Your task to perform on an android device: Open network settings Image 0: 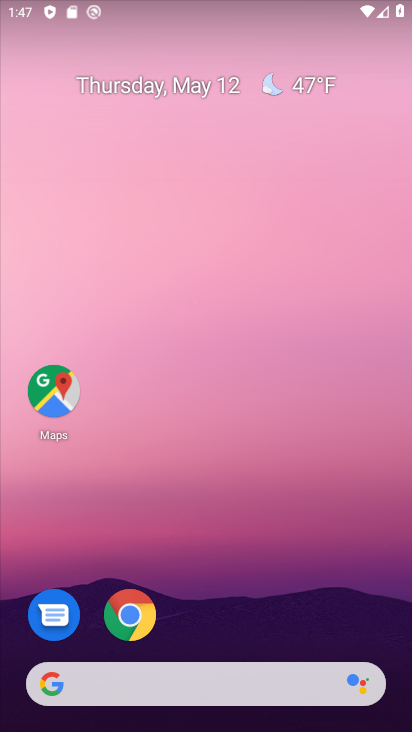
Step 0: drag from (244, 611) to (263, 134)
Your task to perform on an android device: Open network settings Image 1: 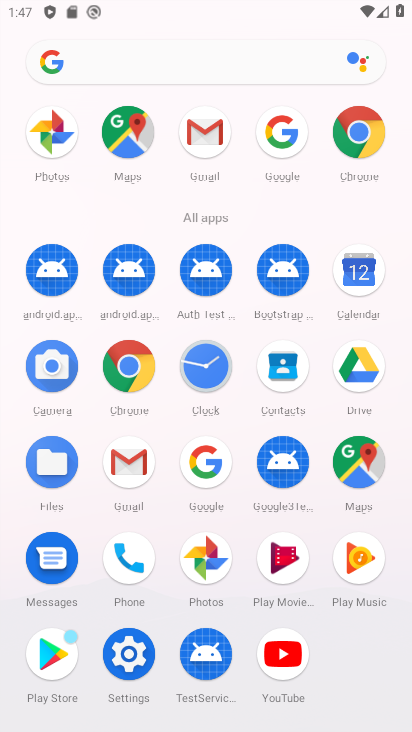
Step 1: click (128, 657)
Your task to perform on an android device: Open network settings Image 2: 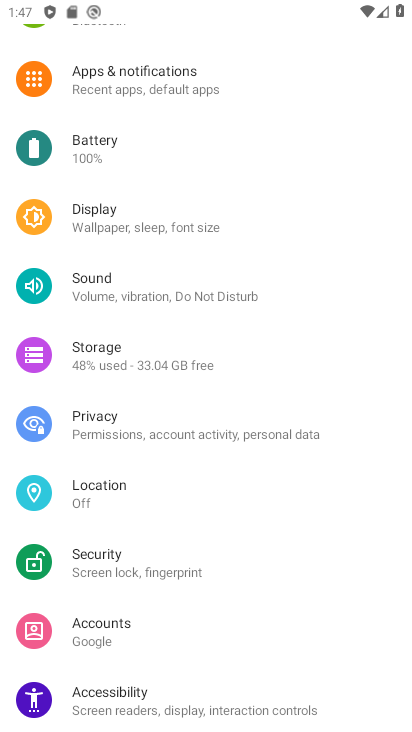
Step 2: drag from (141, 163) to (171, 596)
Your task to perform on an android device: Open network settings Image 3: 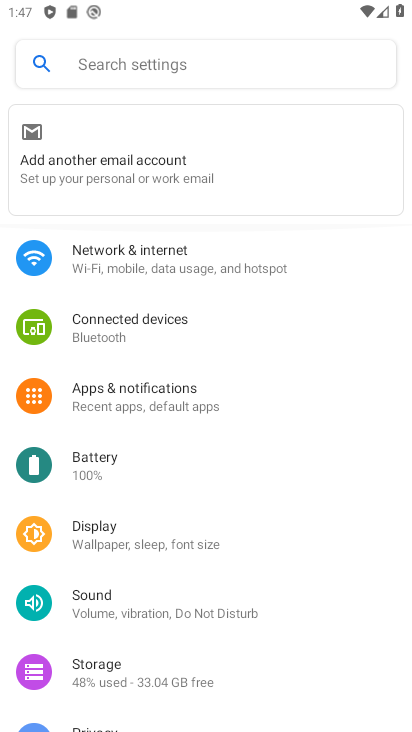
Step 3: click (169, 250)
Your task to perform on an android device: Open network settings Image 4: 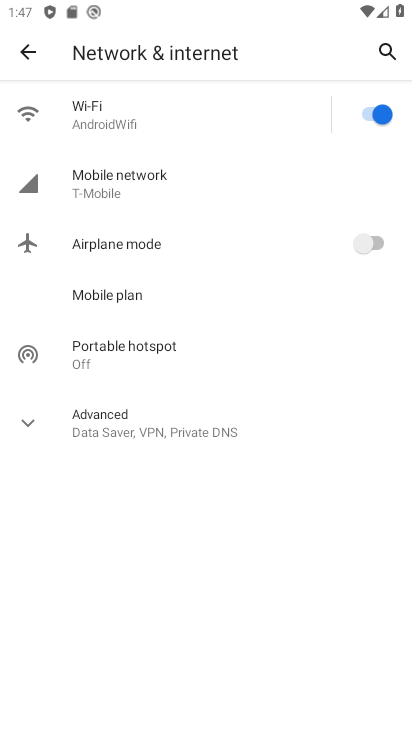
Step 4: click (136, 167)
Your task to perform on an android device: Open network settings Image 5: 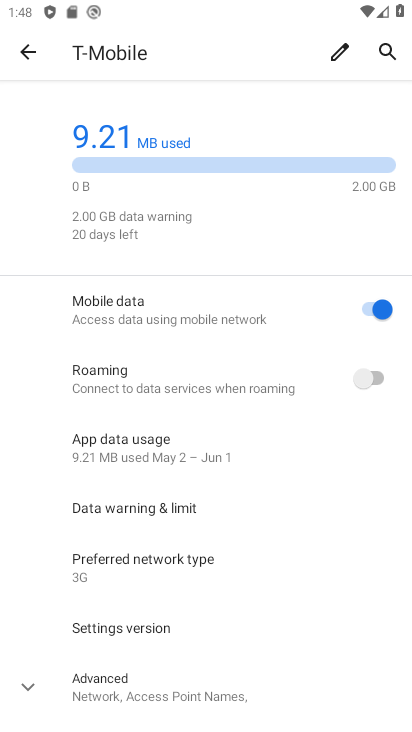
Step 5: task complete